Your task to perform on an android device: toggle improve location accuracy Image 0: 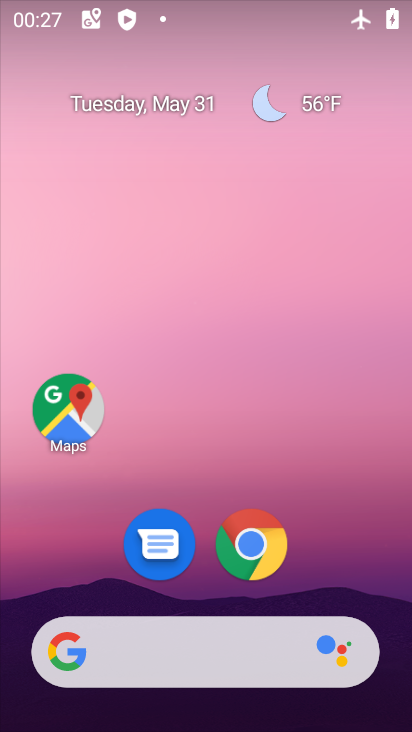
Step 0: drag from (346, 489) to (199, 38)
Your task to perform on an android device: toggle improve location accuracy Image 1: 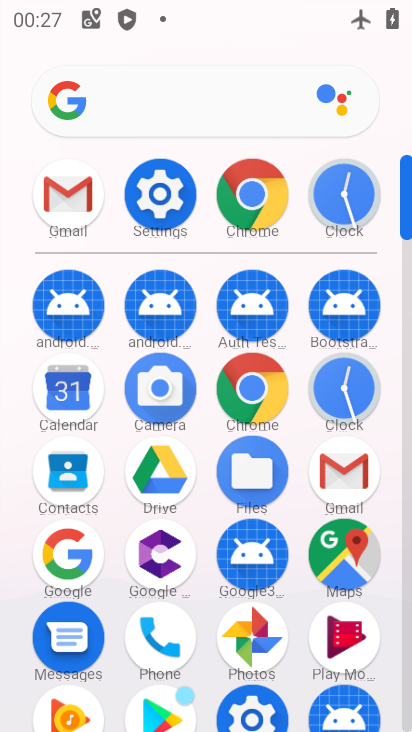
Step 1: click (161, 190)
Your task to perform on an android device: toggle improve location accuracy Image 2: 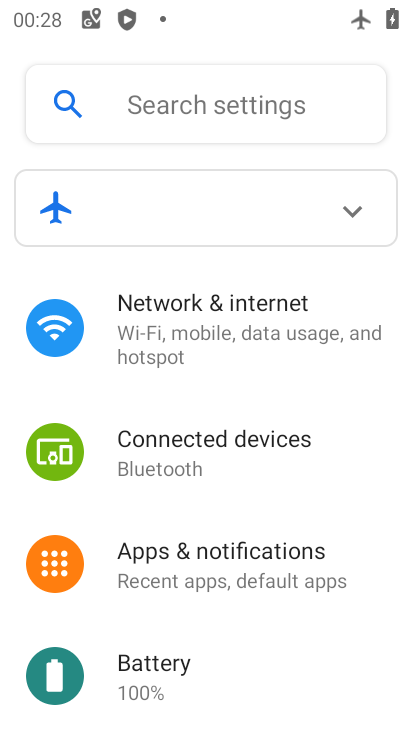
Step 2: drag from (216, 594) to (206, 279)
Your task to perform on an android device: toggle improve location accuracy Image 3: 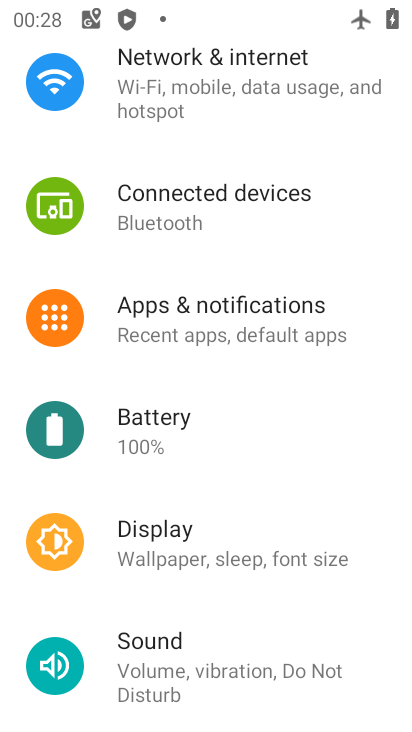
Step 3: drag from (196, 606) to (130, 234)
Your task to perform on an android device: toggle improve location accuracy Image 4: 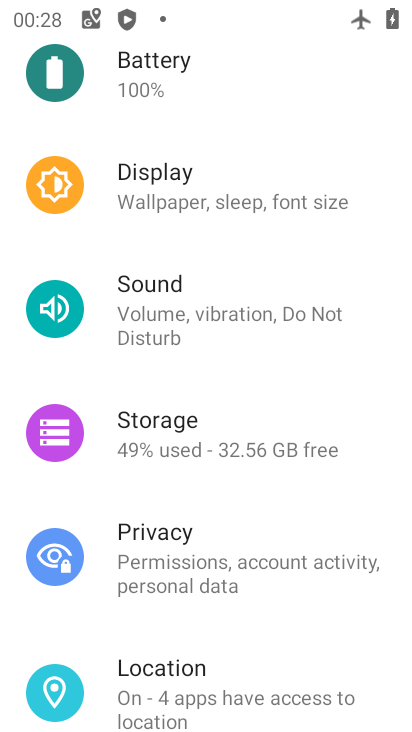
Step 4: drag from (200, 485) to (200, 178)
Your task to perform on an android device: toggle improve location accuracy Image 5: 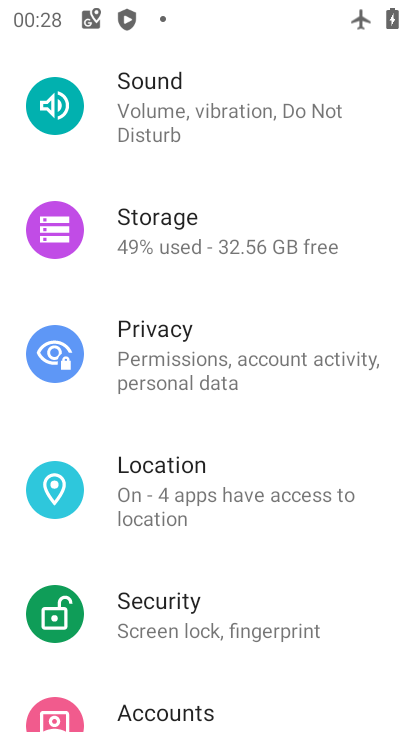
Step 5: click (151, 478)
Your task to perform on an android device: toggle improve location accuracy Image 6: 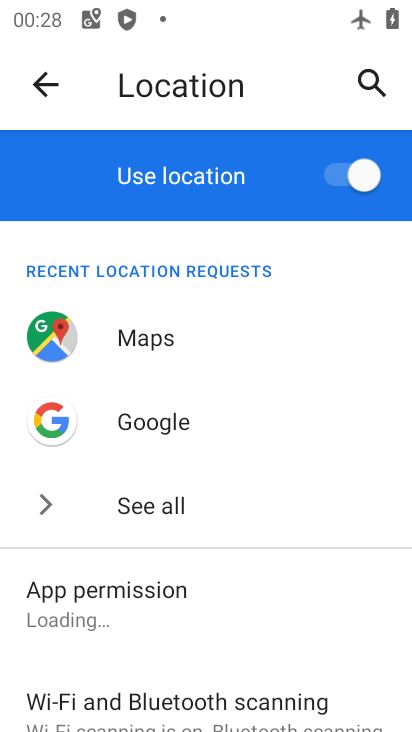
Step 6: drag from (193, 561) to (168, 166)
Your task to perform on an android device: toggle improve location accuracy Image 7: 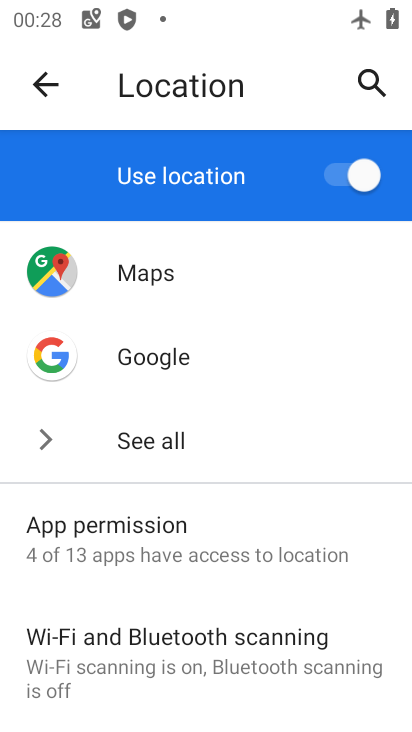
Step 7: drag from (190, 595) to (169, 324)
Your task to perform on an android device: toggle improve location accuracy Image 8: 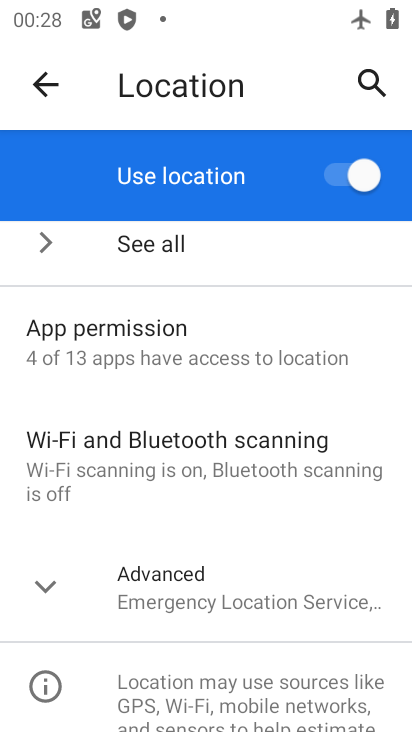
Step 8: click (55, 595)
Your task to perform on an android device: toggle improve location accuracy Image 9: 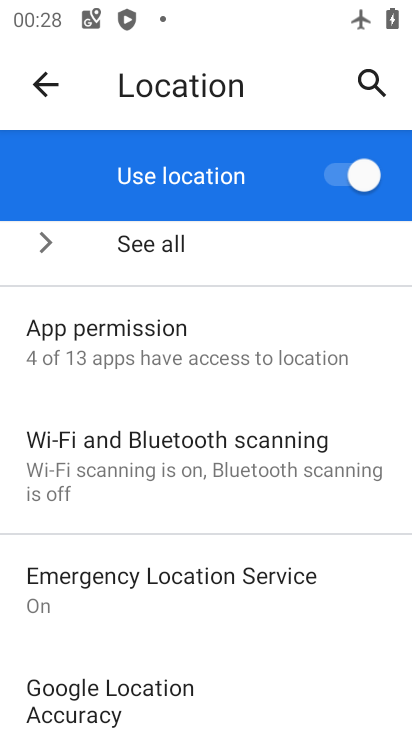
Step 9: drag from (135, 625) to (175, 303)
Your task to perform on an android device: toggle improve location accuracy Image 10: 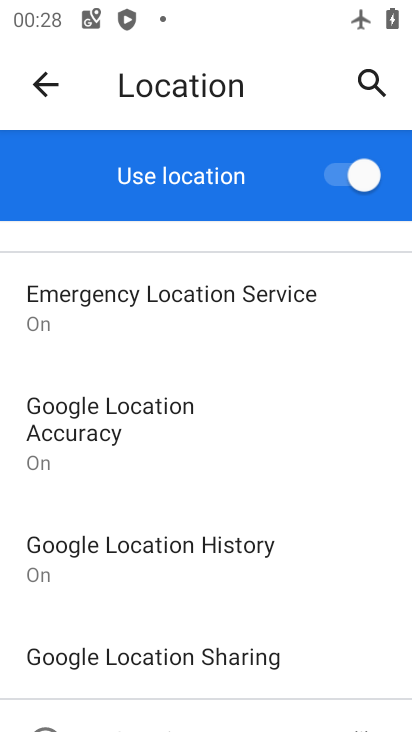
Step 10: click (82, 412)
Your task to perform on an android device: toggle improve location accuracy Image 11: 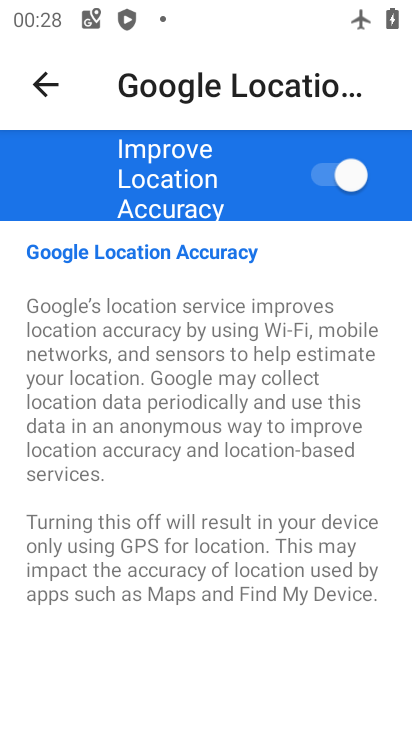
Step 11: click (339, 177)
Your task to perform on an android device: toggle improve location accuracy Image 12: 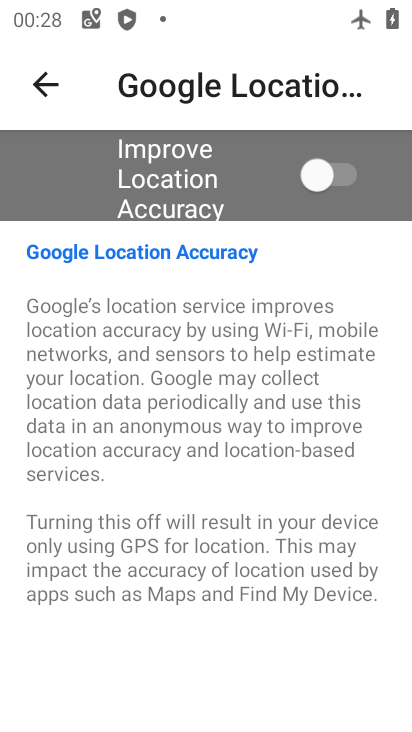
Step 12: task complete